Your task to perform on an android device: Turn on the flashlight Image 0: 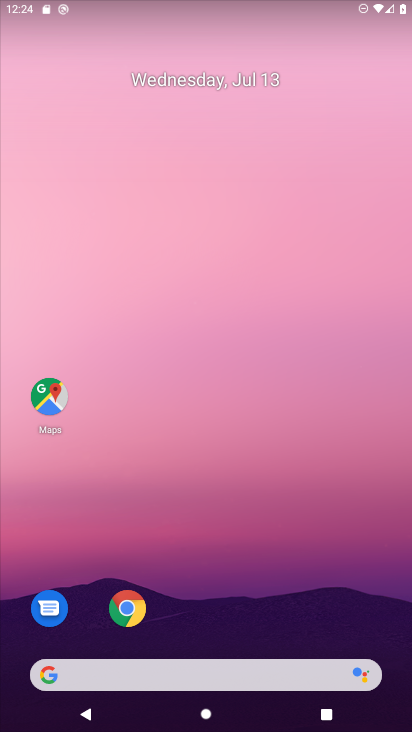
Step 0: drag from (221, 623) to (227, 86)
Your task to perform on an android device: Turn on the flashlight Image 1: 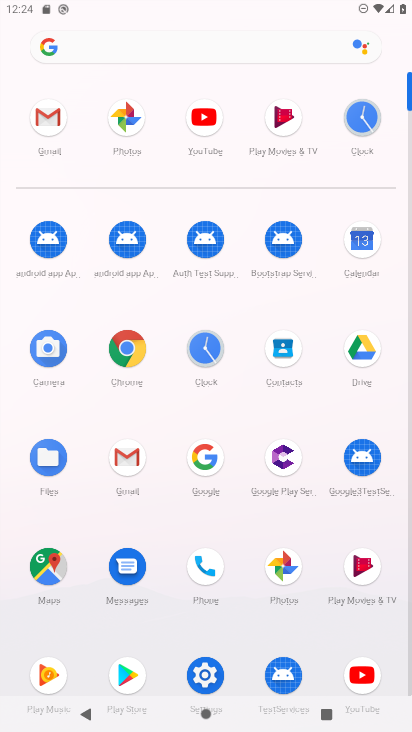
Step 1: click (190, 674)
Your task to perform on an android device: Turn on the flashlight Image 2: 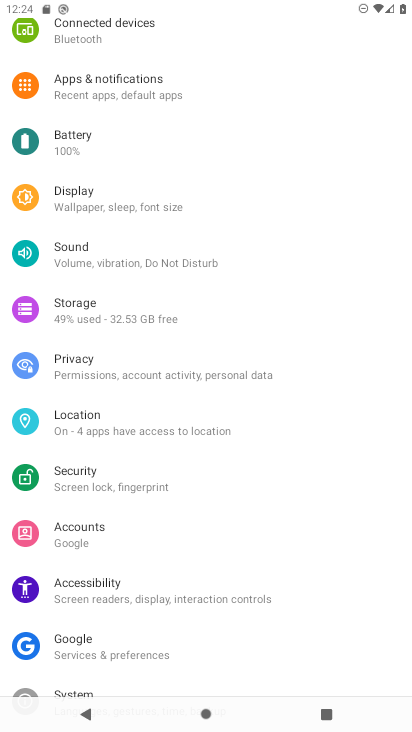
Step 2: task complete